Your task to perform on an android device: turn on the 24-hour format for clock Image 0: 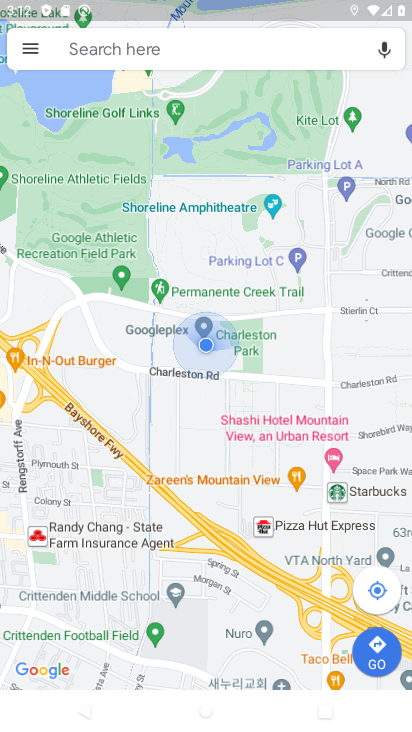
Step 0: press home button
Your task to perform on an android device: turn on the 24-hour format for clock Image 1: 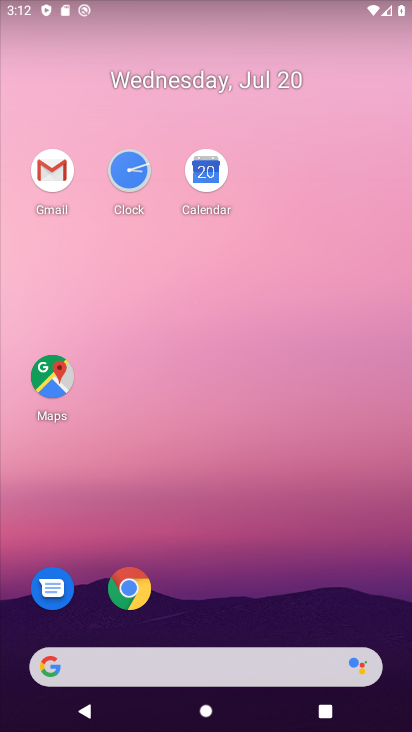
Step 1: click (138, 157)
Your task to perform on an android device: turn on the 24-hour format for clock Image 2: 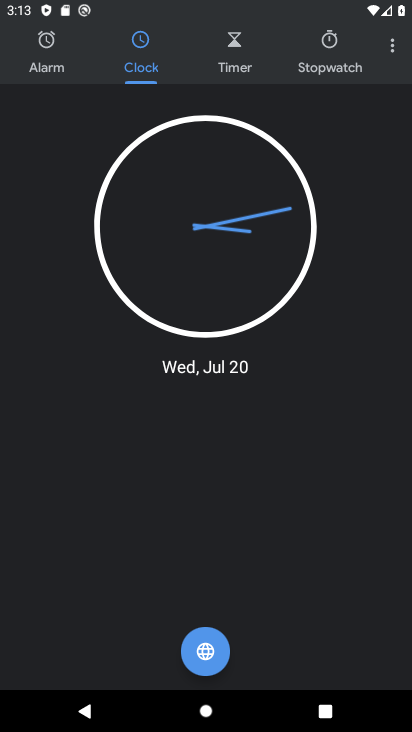
Step 2: click (392, 39)
Your task to perform on an android device: turn on the 24-hour format for clock Image 3: 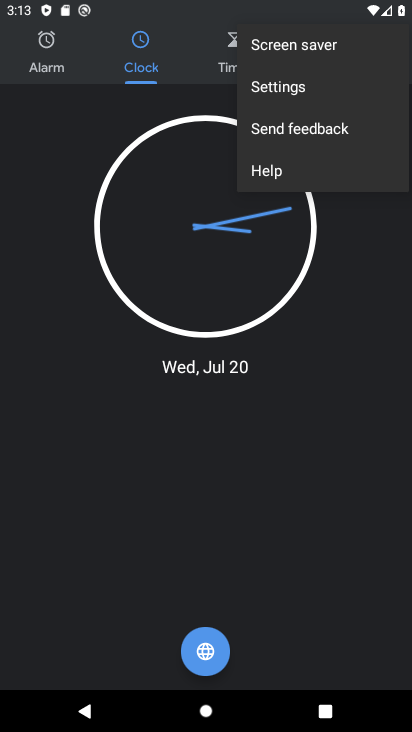
Step 3: click (267, 79)
Your task to perform on an android device: turn on the 24-hour format for clock Image 4: 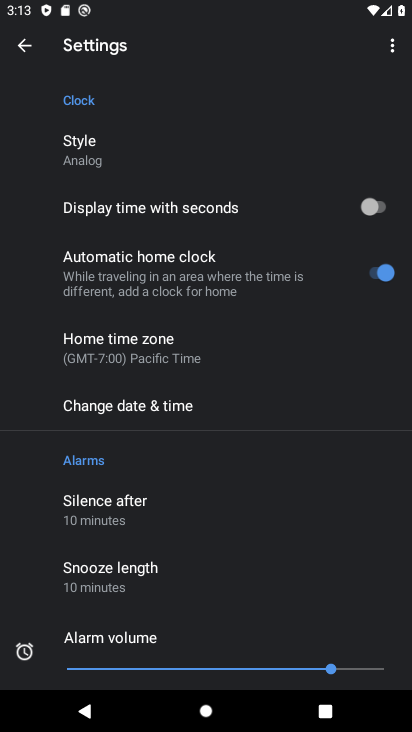
Step 4: click (141, 416)
Your task to perform on an android device: turn on the 24-hour format for clock Image 5: 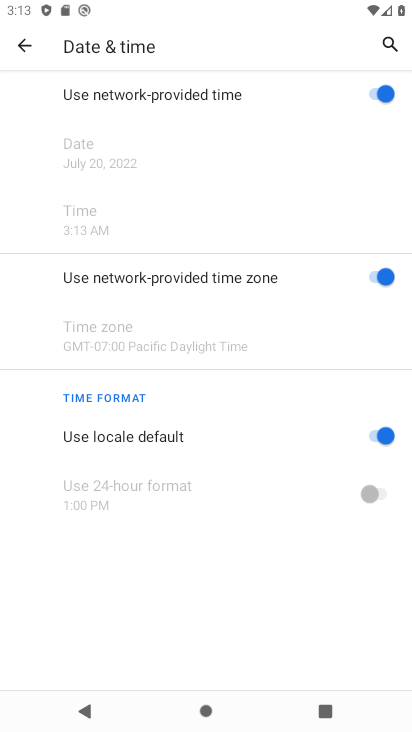
Step 5: click (365, 504)
Your task to perform on an android device: turn on the 24-hour format for clock Image 6: 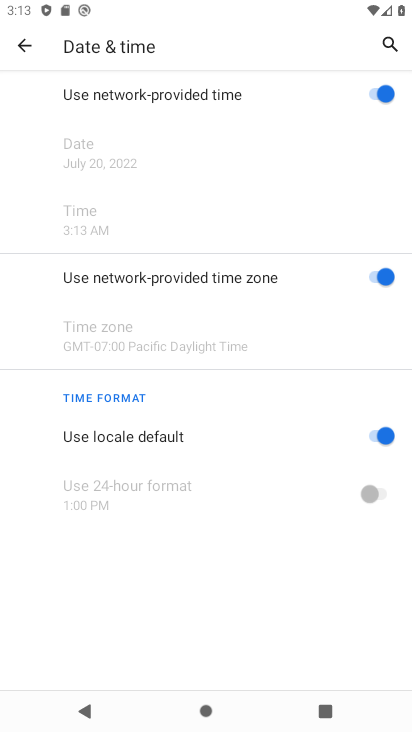
Step 6: click (376, 439)
Your task to perform on an android device: turn on the 24-hour format for clock Image 7: 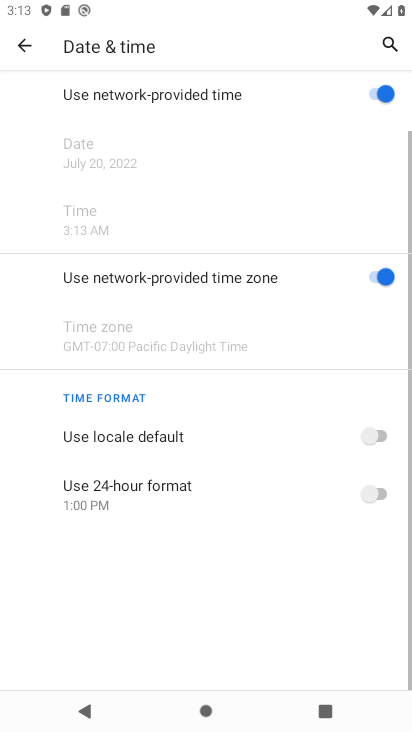
Step 7: click (367, 486)
Your task to perform on an android device: turn on the 24-hour format for clock Image 8: 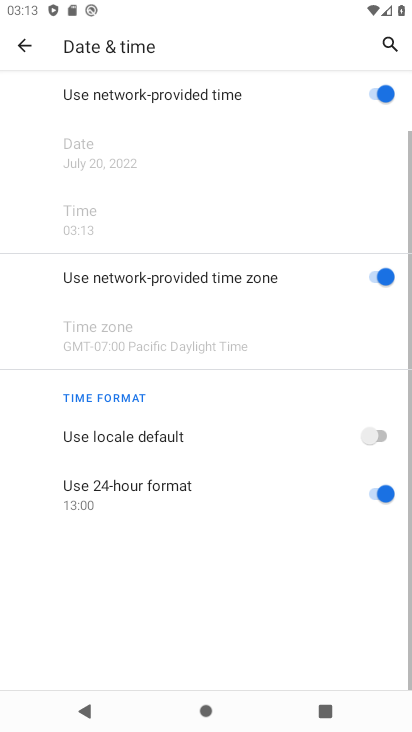
Step 8: task complete